Your task to perform on an android device: Open Reddit.com Image 0: 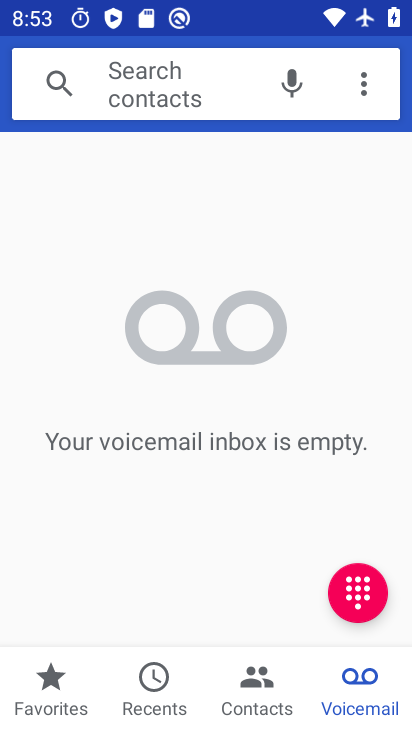
Step 0: press home button
Your task to perform on an android device: Open Reddit.com Image 1: 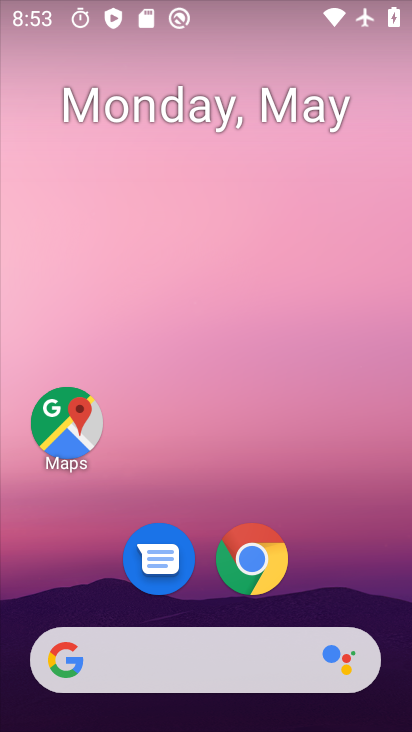
Step 1: click (253, 555)
Your task to perform on an android device: Open Reddit.com Image 2: 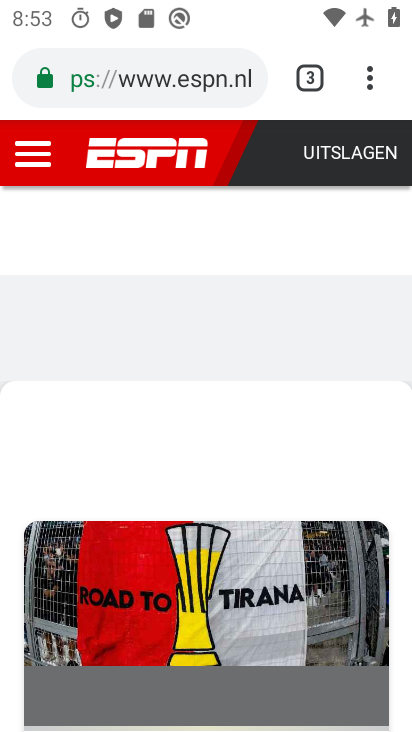
Step 2: click (113, 79)
Your task to perform on an android device: Open Reddit.com Image 3: 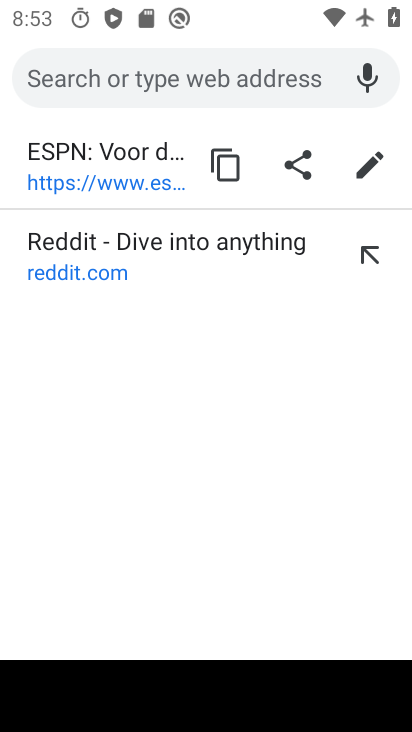
Step 3: type "reddit.com"
Your task to perform on an android device: Open Reddit.com Image 4: 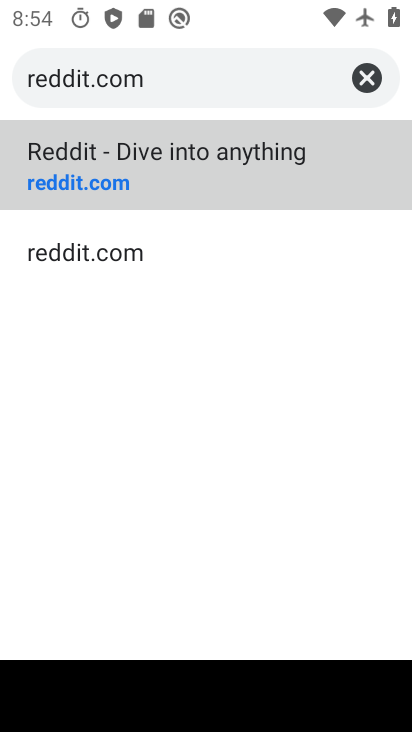
Step 4: click (19, 165)
Your task to perform on an android device: Open Reddit.com Image 5: 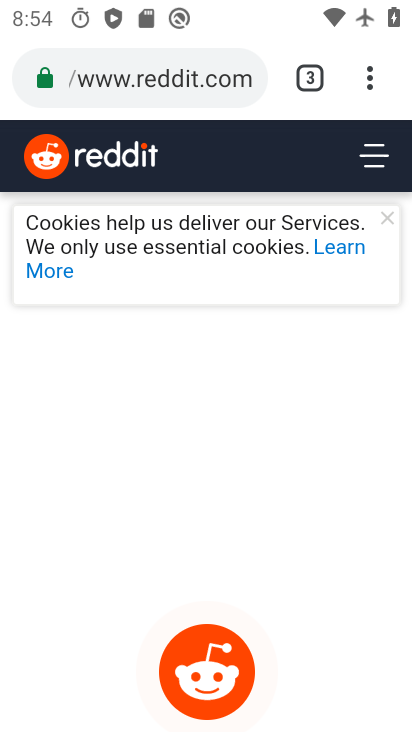
Step 5: task complete